Your task to perform on an android device: turn off airplane mode Image 0: 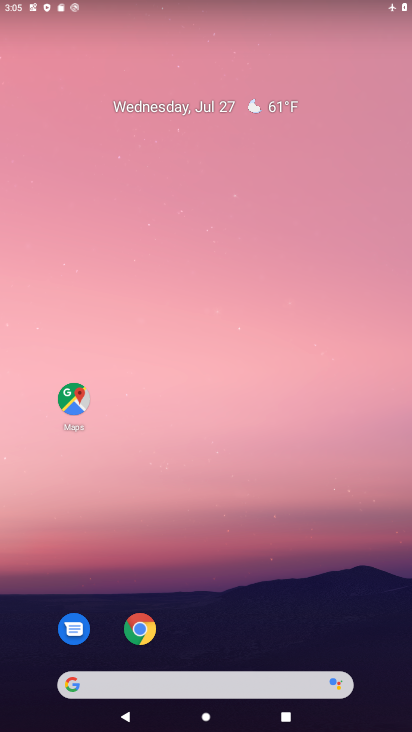
Step 0: drag from (208, 681) to (267, 16)
Your task to perform on an android device: turn off airplane mode Image 1: 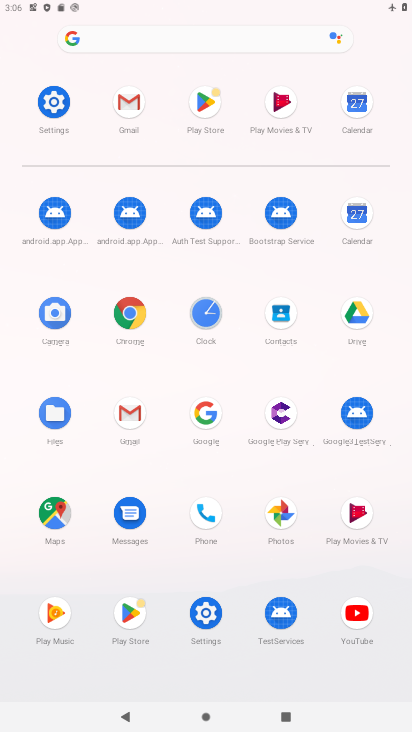
Step 1: click (54, 101)
Your task to perform on an android device: turn off airplane mode Image 2: 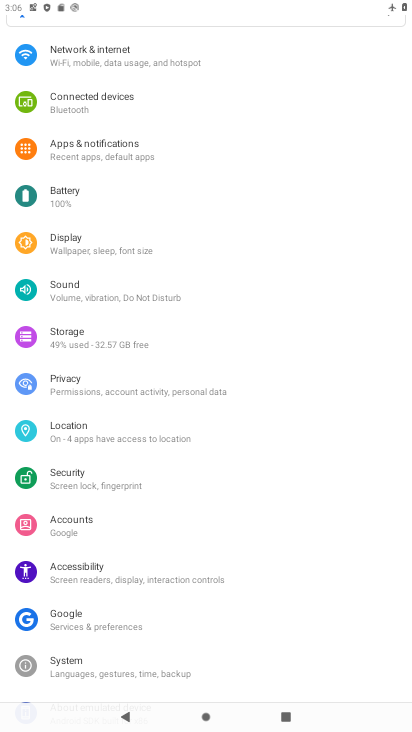
Step 2: click (109, 59)
Your task to perform on an android device: turn off airplane mode Image 3: 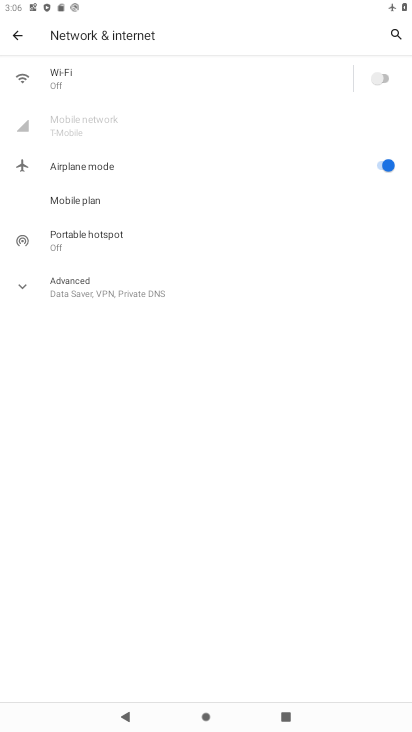
Step 3: click (381, 163)
Your task to perform on an android device: turn off airplane mode Image 4: 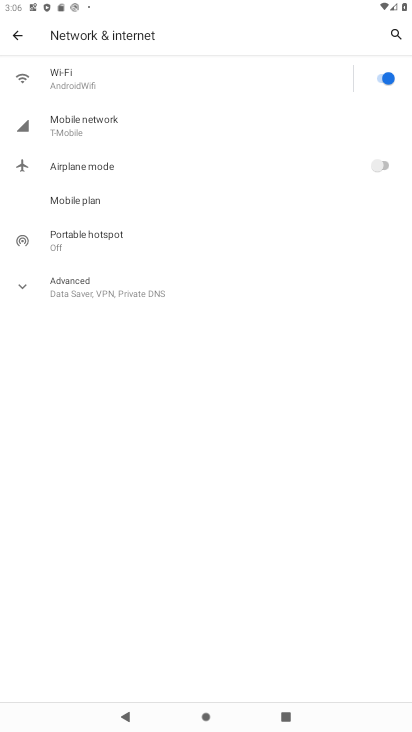
Step 4: task complete